Your task to perform on an android device: Open Yahoo.com Image 0: 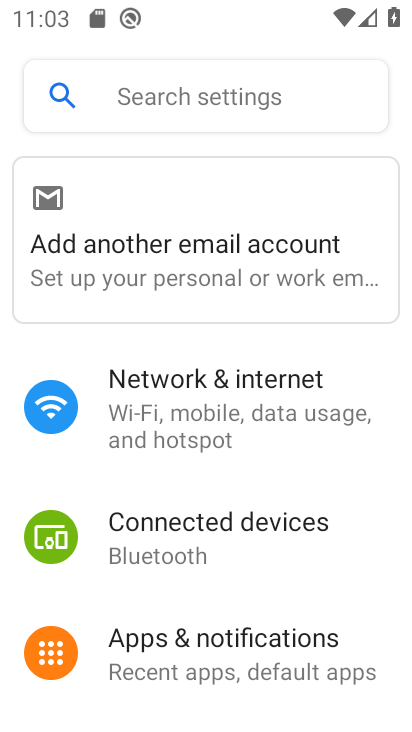
Step 0: press home button
Your task to perform on an android device: Open Yahoo.com Image 1: 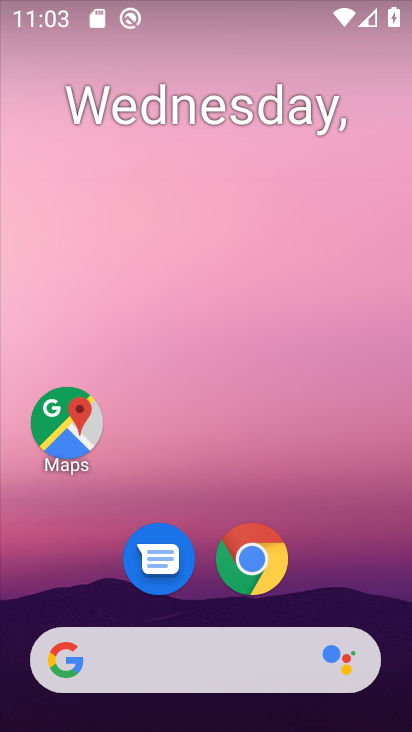
Step 1: drag from (195, 705) to (304, 128)
Your task to perform on an android device: Open Yahoo.com Image 2: 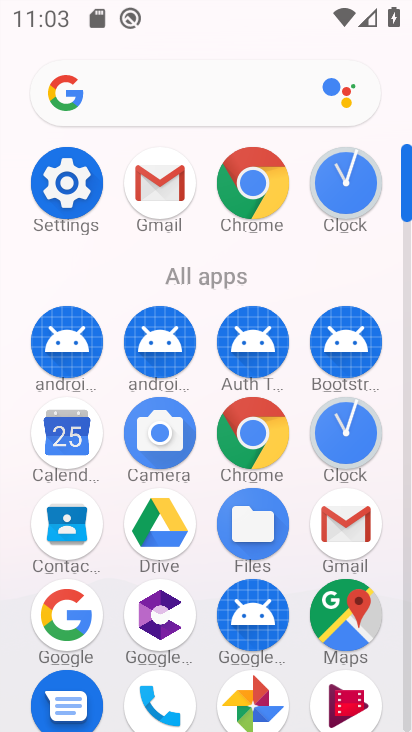
Step 2: click (263, 193)
Your task to perform on an android device: Open Yahoo.com Image 3: 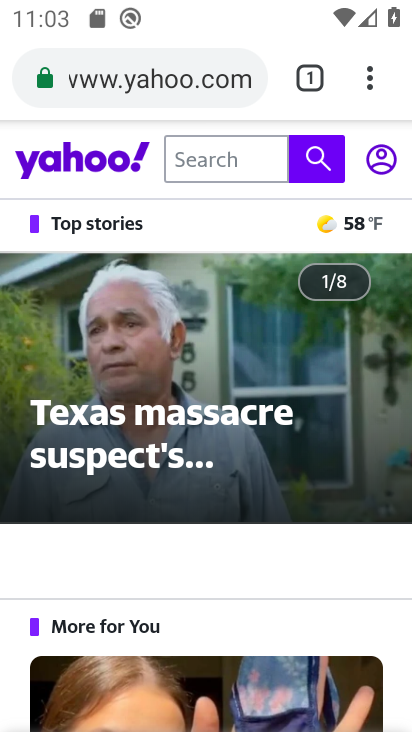
Step 3: click (157, 91)
Your task to perform on an android device: Open Yahoo.com Image 4: 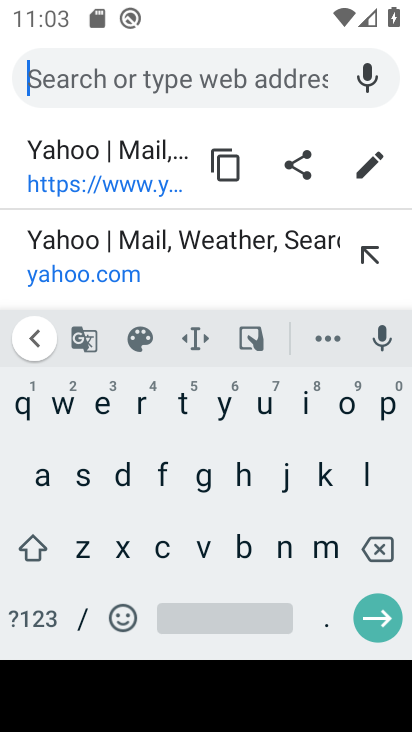
Step 4: click (96, 163)
Your task to perform on an android device: Open Yahoo.com Image 5: 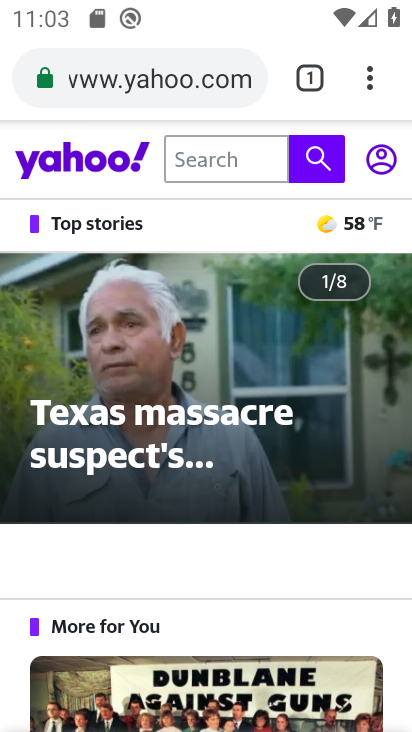
Step 5: task complete